Your task to perform on an android device: open app "VLC for Android" (install if not already installed) Image 0: 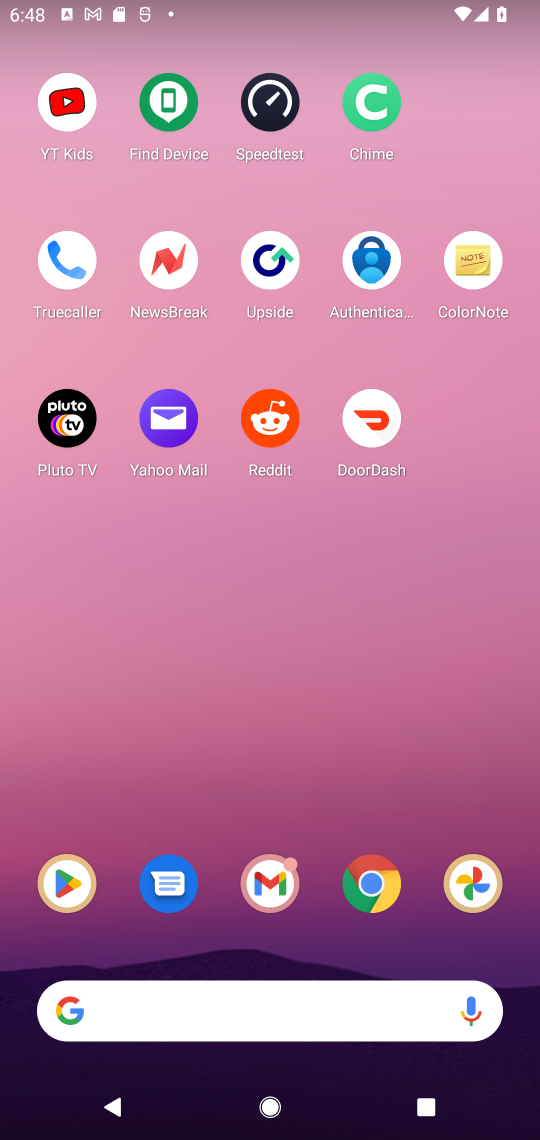
Step 0: click (66, 881)
Your task to perform on an android device: open app "VLC for Android" (install if not already installed) Image 1: 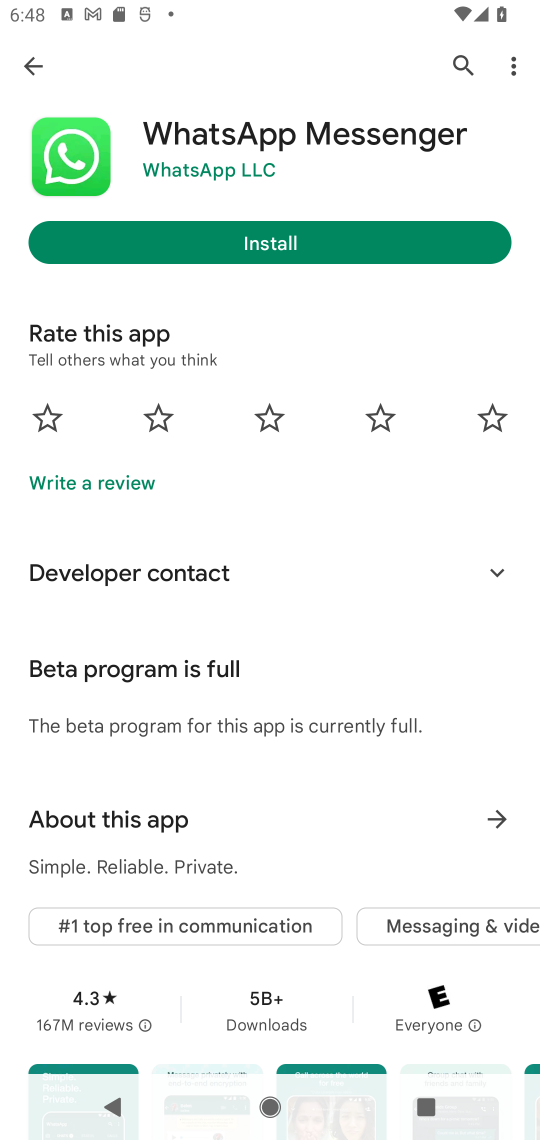
Step 1: click (462, 66)
Your task to perform on an android device: open app "VLC for Android" (install if not already installed) Image 2: 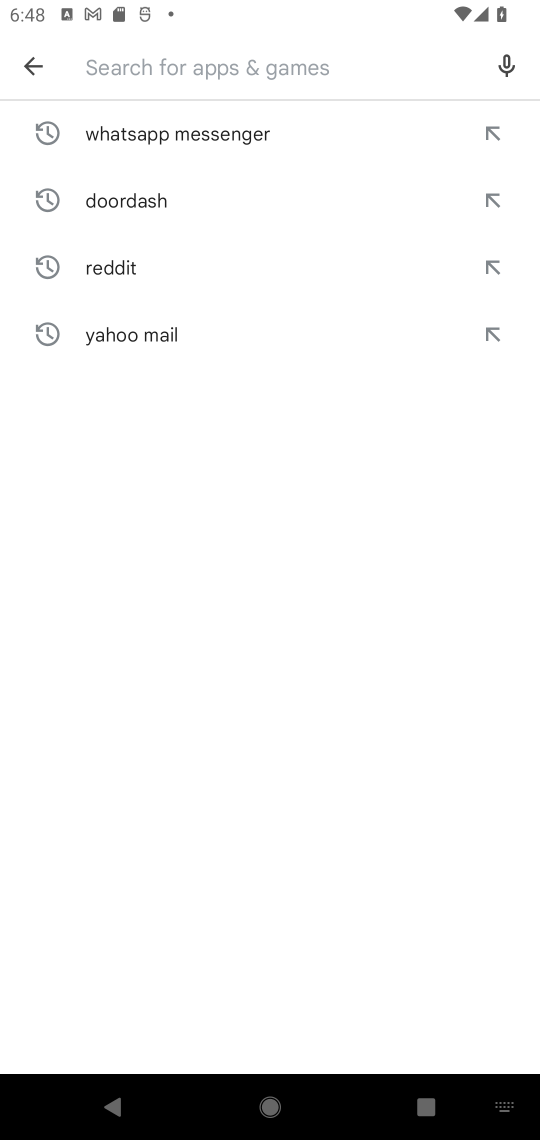
Step 2: click (213, 65)
Your task to perform on an android device: open app "VLC for Android" (install if not already installed) Image 3: 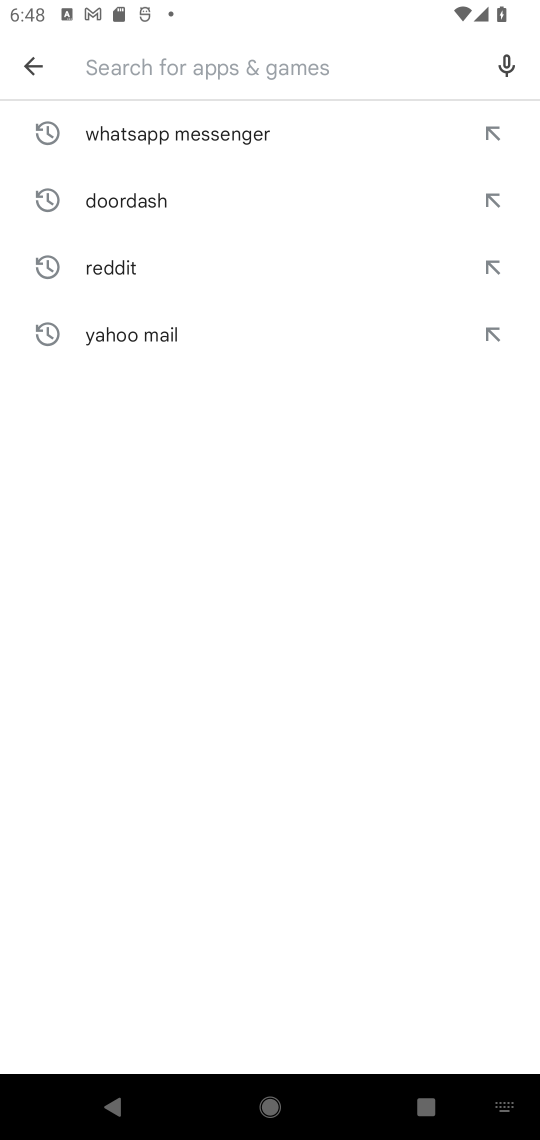
Step 3: type "vlc for andoid"
Your task to perform on an android device: open app "VLC for Android" (install if not already installed) Image 4: 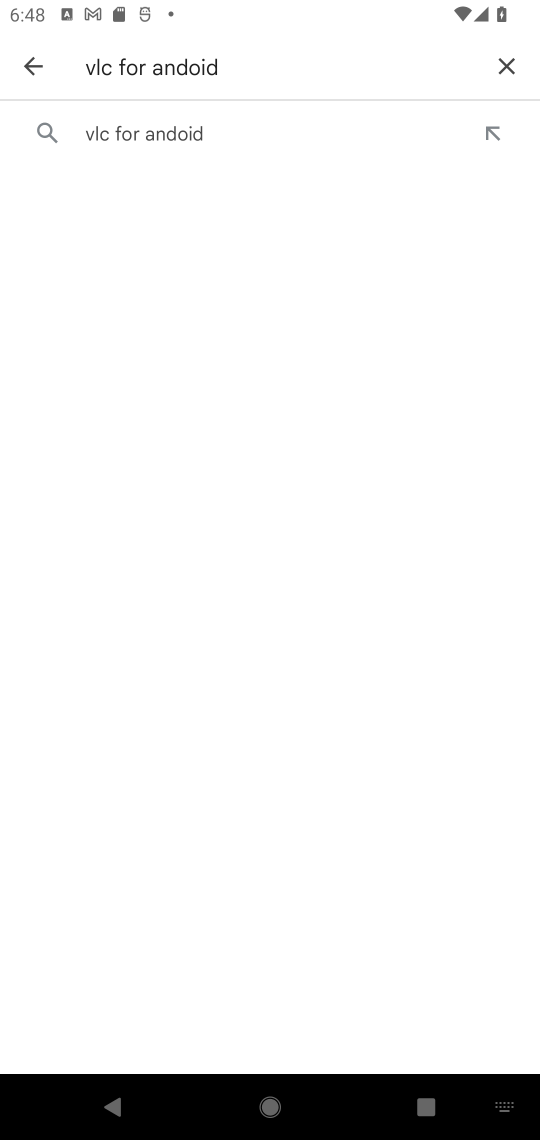
Step 4: click (176, 129)
Your task to perform on an android device: open app "VLC for Android" (install if not already installed) Image 5: 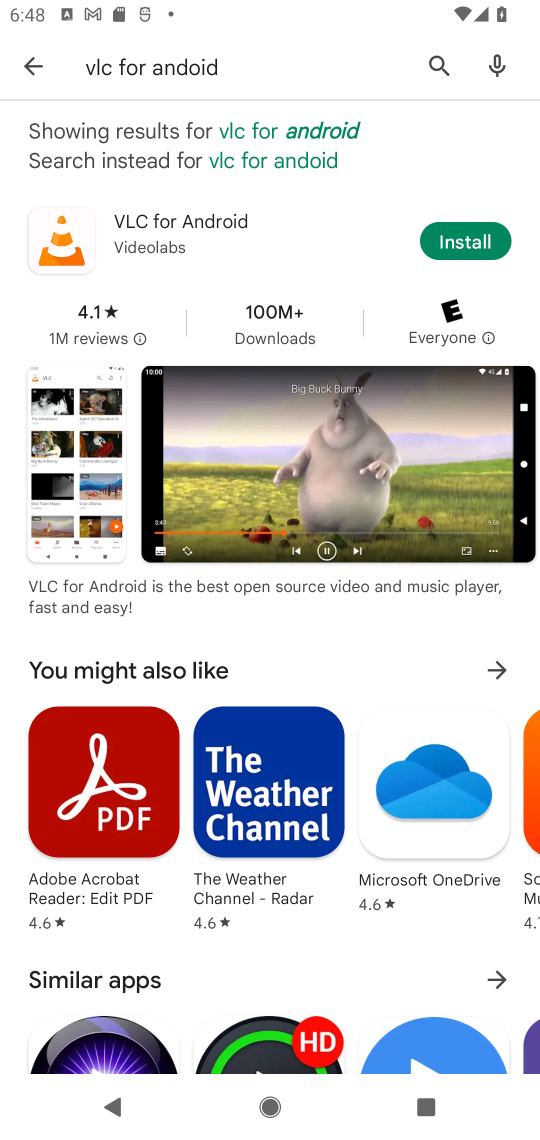
Step 5: click (458, 241)
Your task to perform on an android device: open app "VLC for Android" (install if not already installed) Image 6: 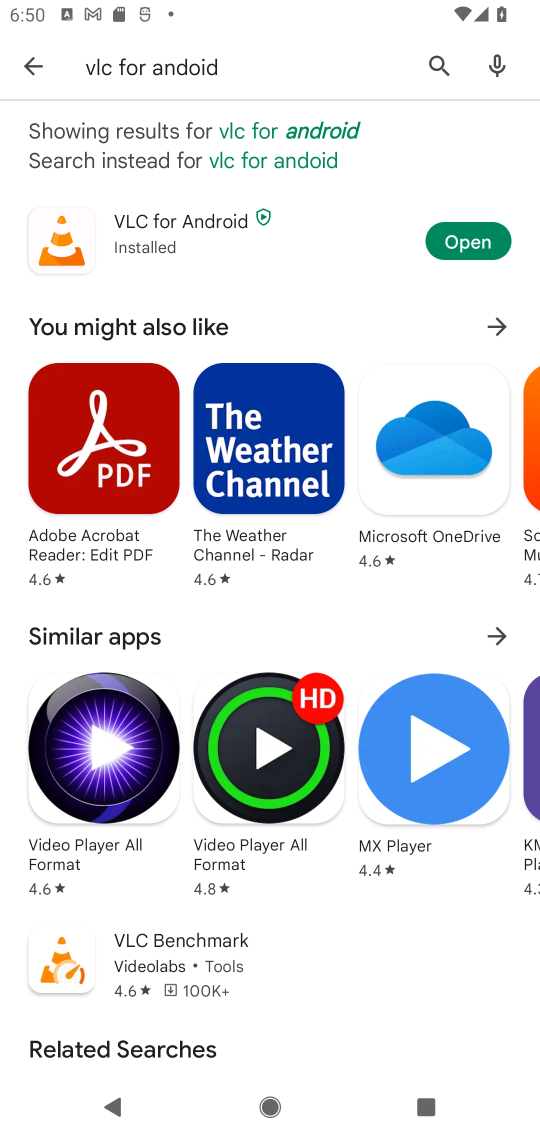
Step 6: click (496, 242)
Your task to perform on an android device: open app "VLC for Android" (install if not already installed) Image 7: 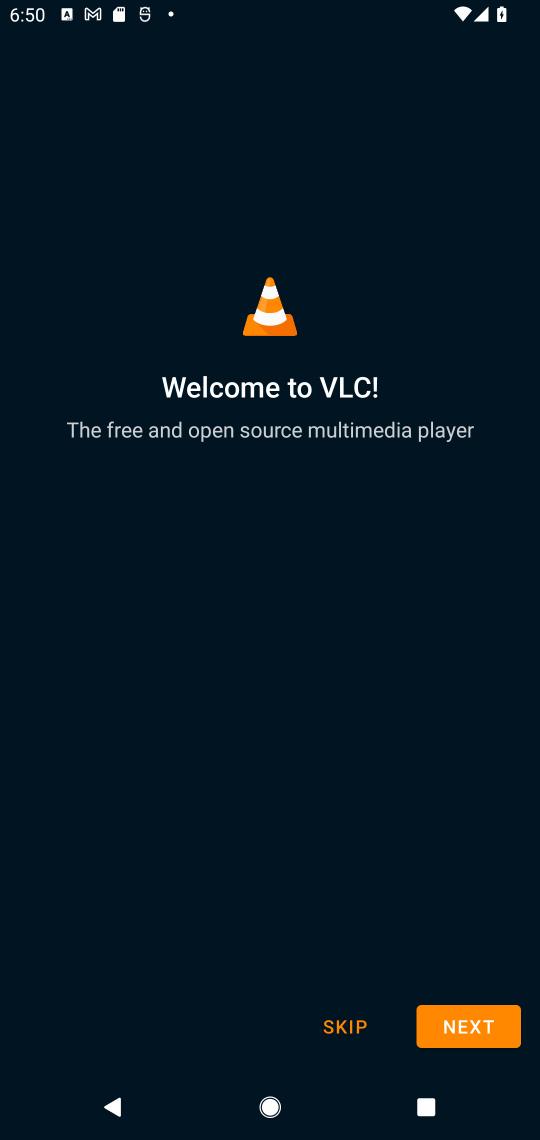
Step 7: task complete